Your task to perform on an android device: delete the emails in spam in the gmail app Image 0: 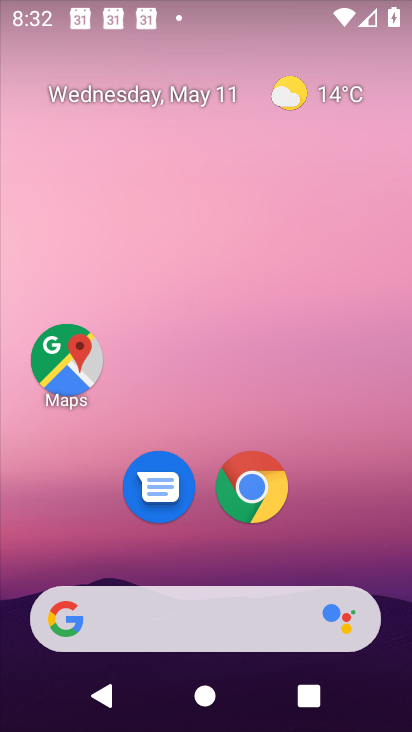
Step 0: drag from (221, 723) to (208, 223)
Your task to perform on an android device: delete the emails in spam in the gmail app Image 1: 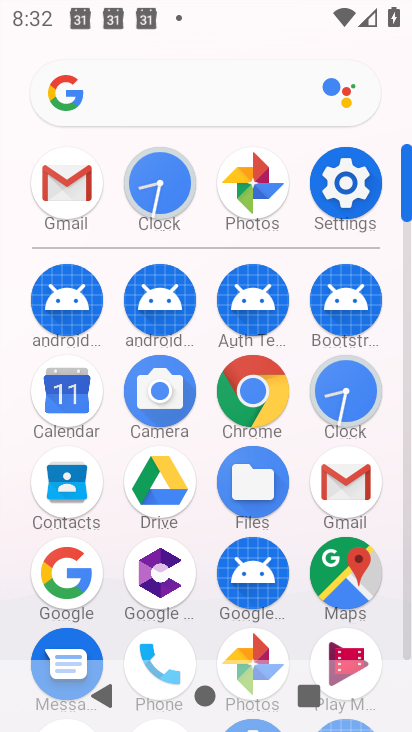
Step 1: click (353, 486)
Your task to perform on an android device: delete the emails in spam in the gmail app Image 2: 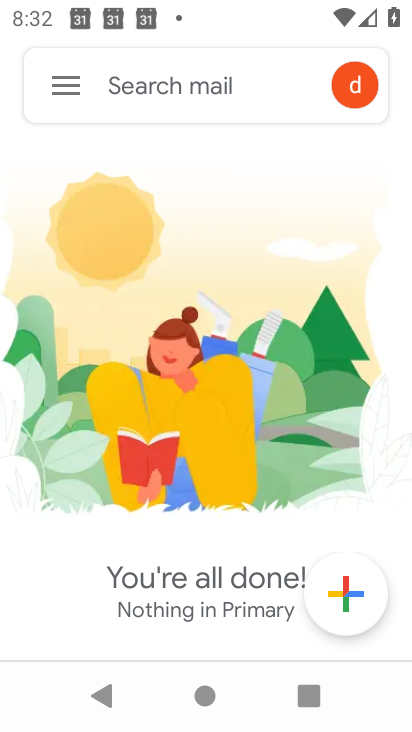
Step 2: click (64, 77)
Your task to perform on an android device: delete the emails in spam in the gmail app Image 3: 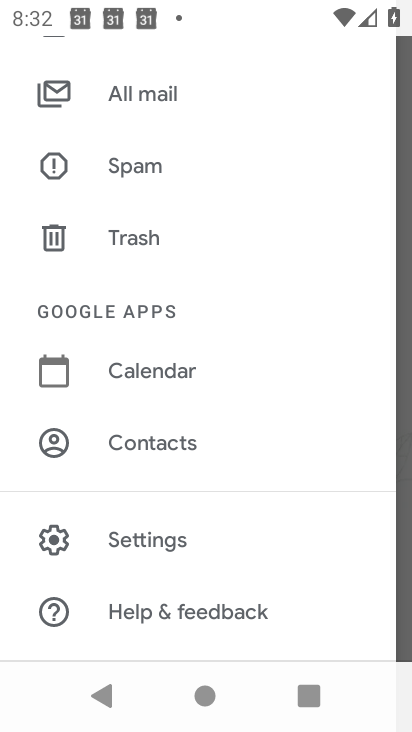
Step 3: click (140, 164)
Your task to perform on an android device: delete the emails in spam in the gmail app Image 4: 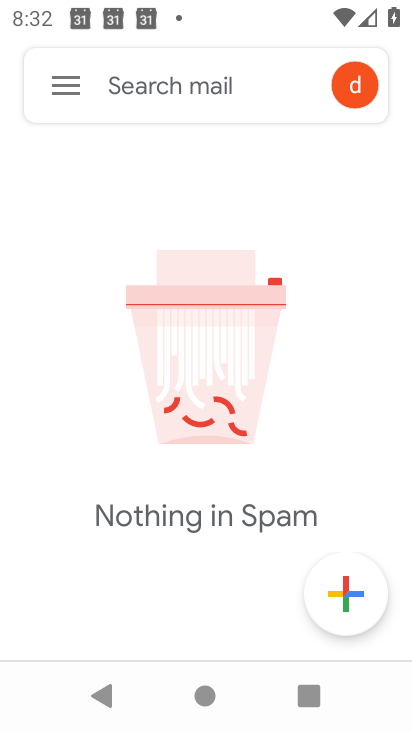
Step 4: task complete